Your task to perform on an android device: Search for pizza restaurants on Maps Image 0: 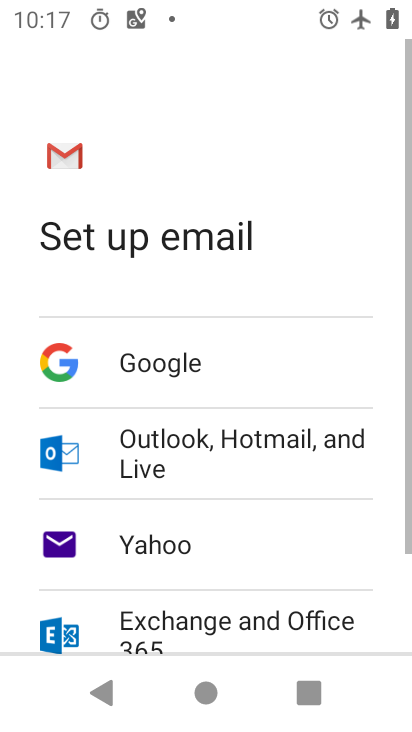
Step 0: press home button
Your task to perform on an android device: Search for pizza restaurants on Maps Image 1: 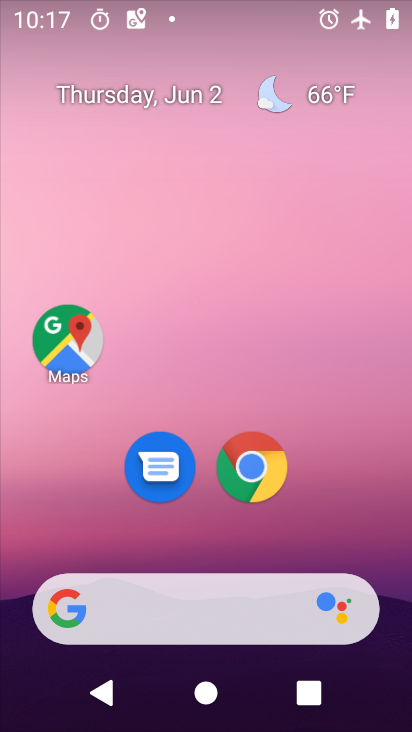
Step 1: drag from (361, 55) to (262, 525)
Your task to perform on an android device: Search for pizza restaurants on Maps Image 2: 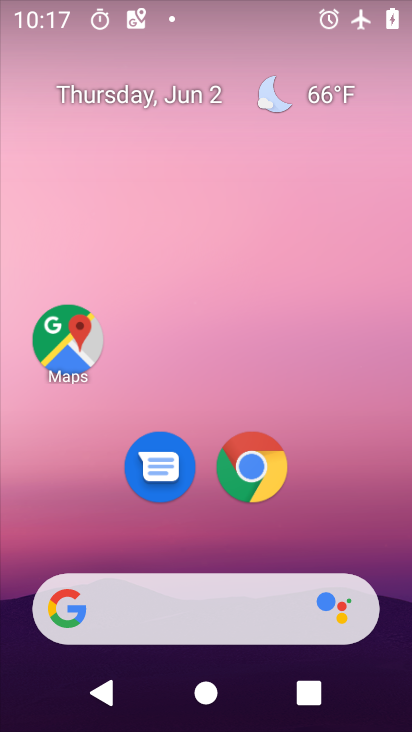
Step 2: drag from (220, 2) to (232, 437)
Your task to perform on an android device: Search for pizza restaurants on Maps Image 3: 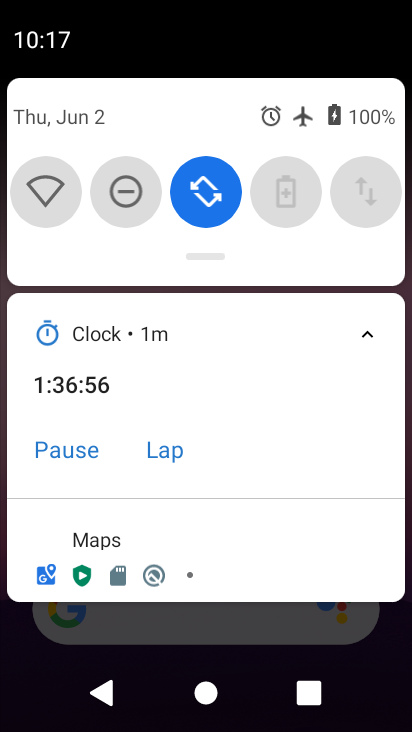
Step 3: drag from (224, 239) to (247, 582)
Your task to perform on an android device: Search for pizza restaurants on Maps Image 4: 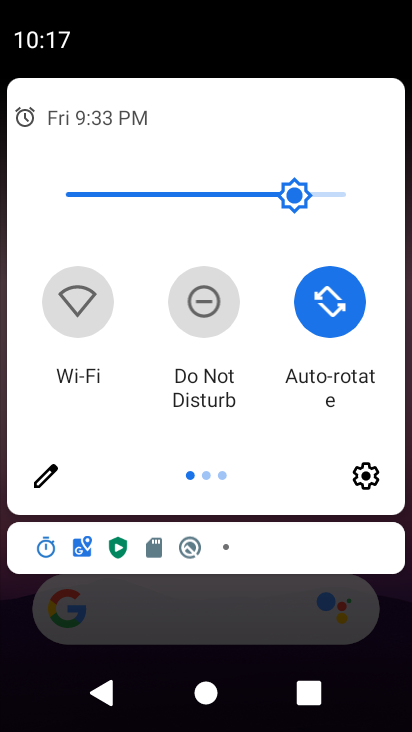
Step 4: drag from (380, 402) to (49, 212)
Your task to perform on an android device: Search for pizza restaurants on Maps Image 5: 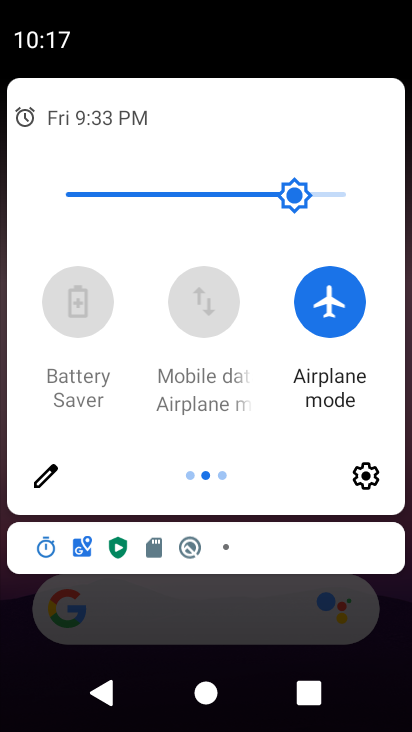
Step 5: click (344, 296)
Your task to perform on an android device: Search for pizza restaurants on Maps Image 6: 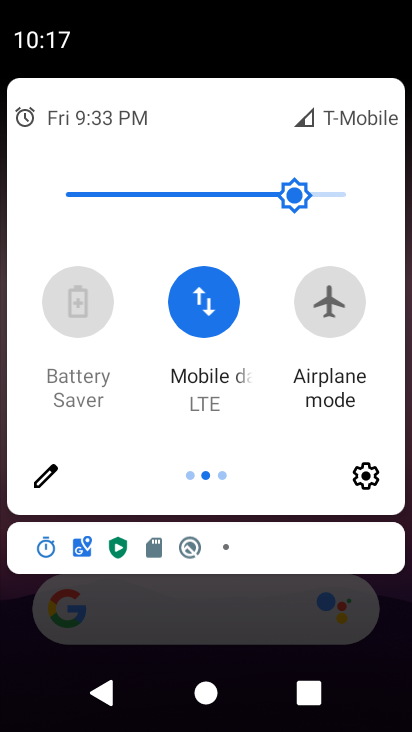
Step 6: press back button
Your task to perform on an android device: Search for pizza restaurants on Maps Image 7: 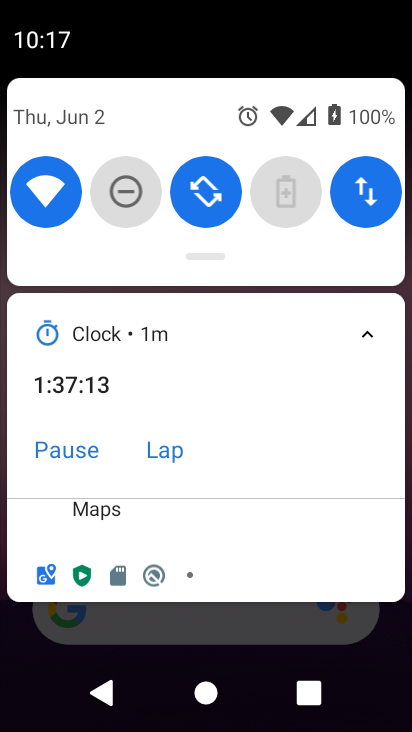
Step 7: press back button
Your task to perform on an android device: Search for pizza restaurants on Maps Image 8: 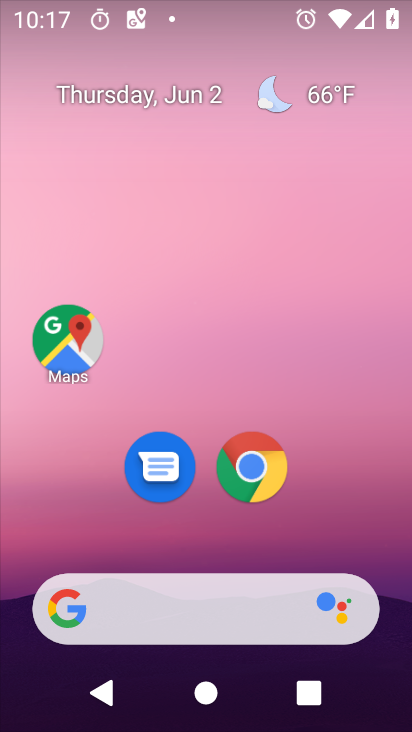
Step 8: click (48, 349)
Your task to perform on an android device: Search for pizza restaurants on Maps Image 9: 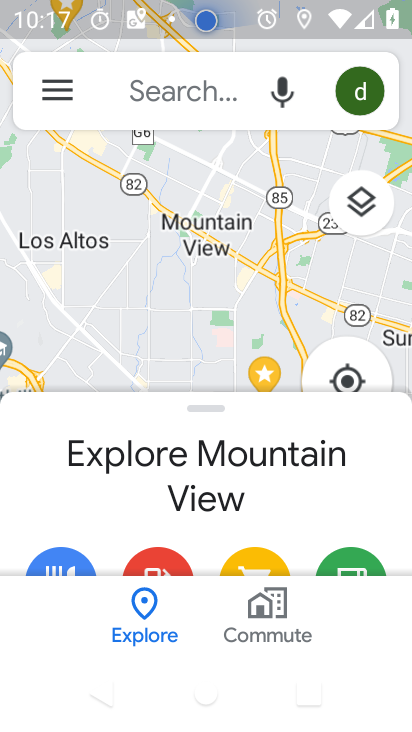
Step 9: click (142, 90)
Your task to perform on an android device: Search for pizza restaurants on Maps Image 10: 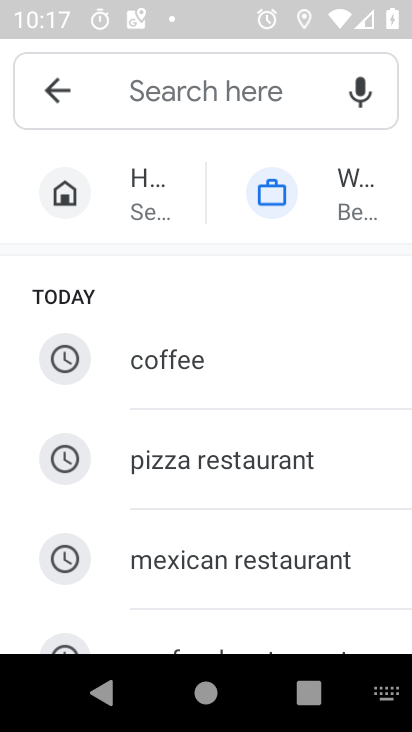
Step 10: click (233, 481)
Your task to perform on an android device: Search for pizza restaurants on Maps Image 11: 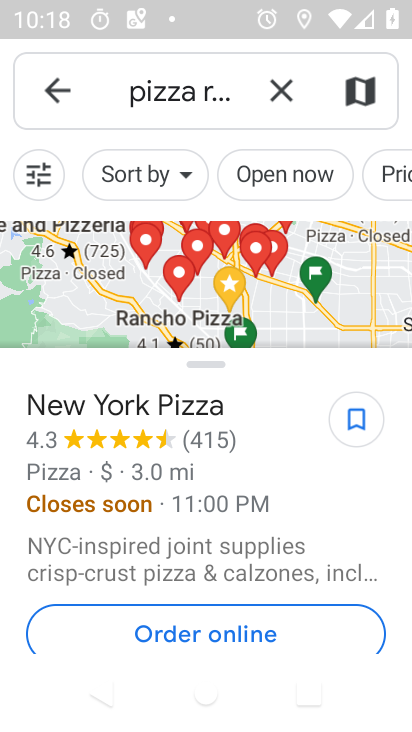
Step 11: task complete